Your task to perform on an android device: set an alarm Image 0: 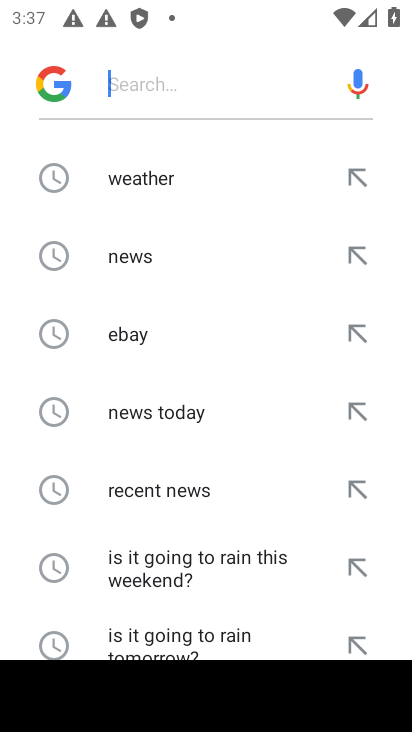
Step 0: press home button
Your task to perform on an android device: set an alarm Image 1: 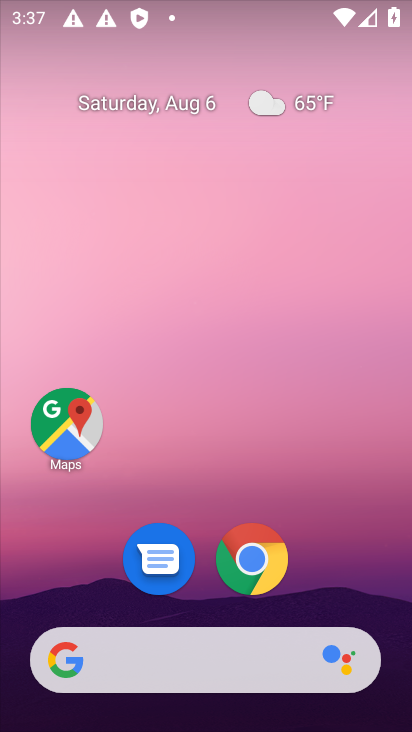
Step 1: drag from (306, 531) to (299, 99)
Your task to perform on an android device: set an alarm Image 2: 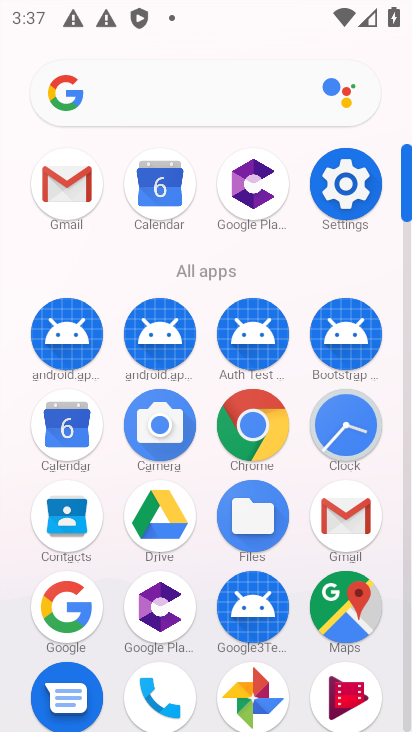
Step 2: click (330, 435)
Your task to perform on an android device: set an alarm Image 3: 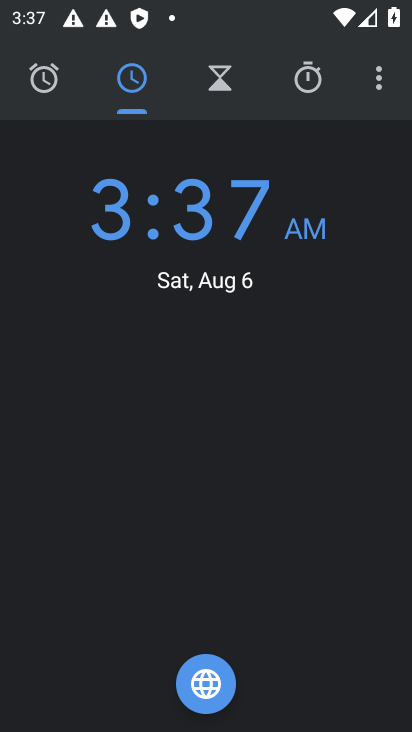
Step 3: click (50, 89)
Your task to perform on an android device: set an alarm Image 4: 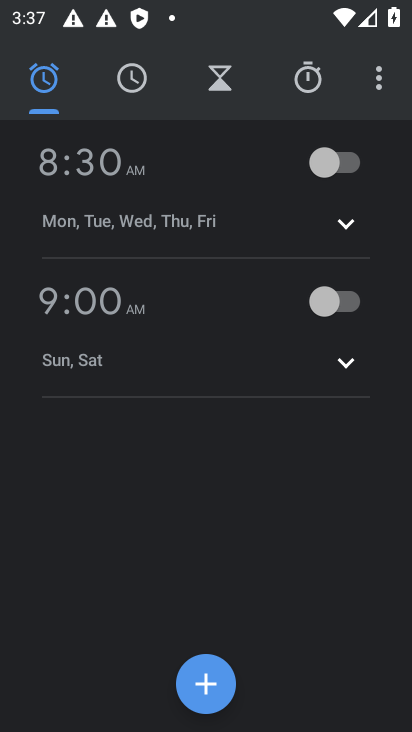
Step 4: click (214, 679)
Your task to perform on an android device: set an alarm Image 5: 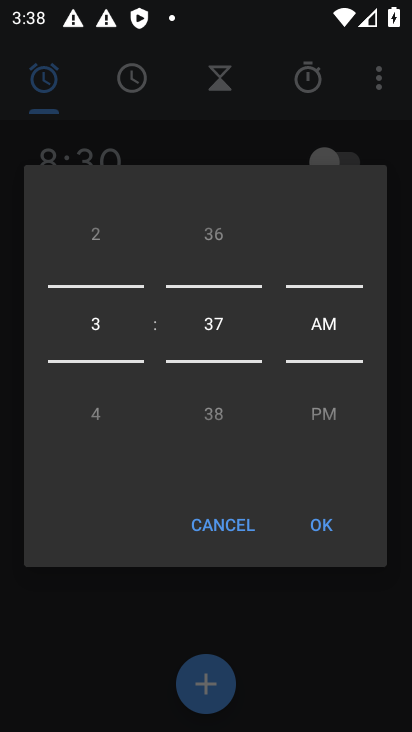
Step 5: drag from (212, 225) to (212, 434)
Your task to perform on an android device: set an alarm Image 6: 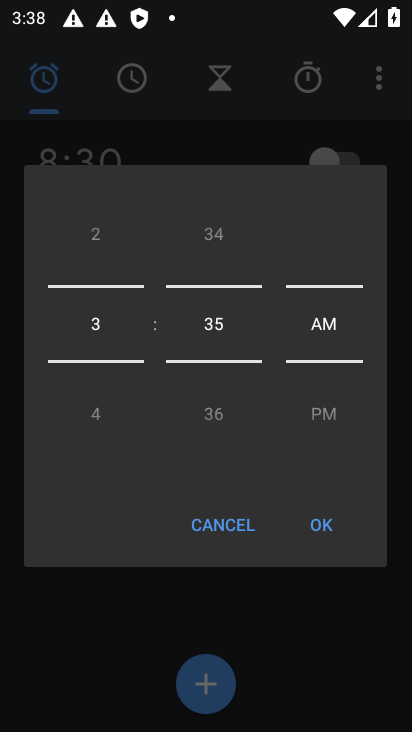
Step 6: drag from (210, 236) to (220, 430)
Your task to perform on an android device: set an alarm Image 7: 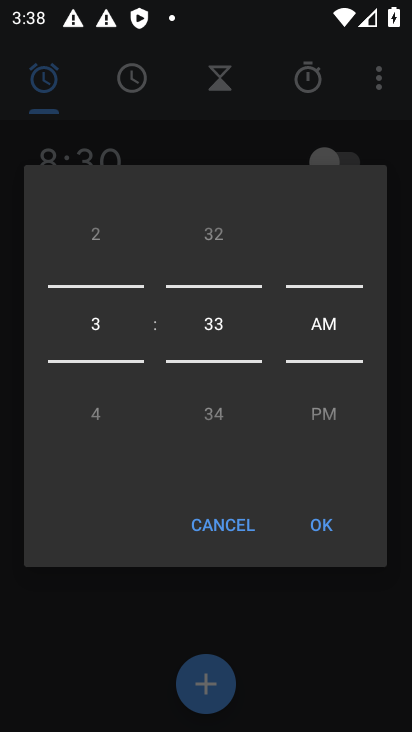
Step 7: drag from (224, 227) to (220, 435)
Your task to perform on an android device: set an alarm Image 8: 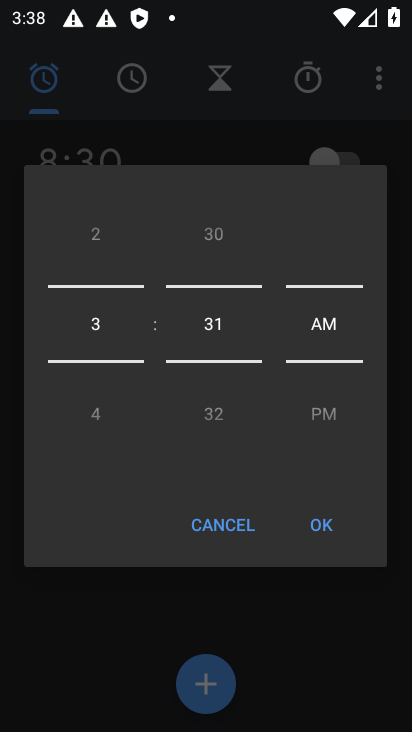
Step 8: drag from (218, 240) to (227, 345)
Your task to perform on an android device: set an alarm Image 9: 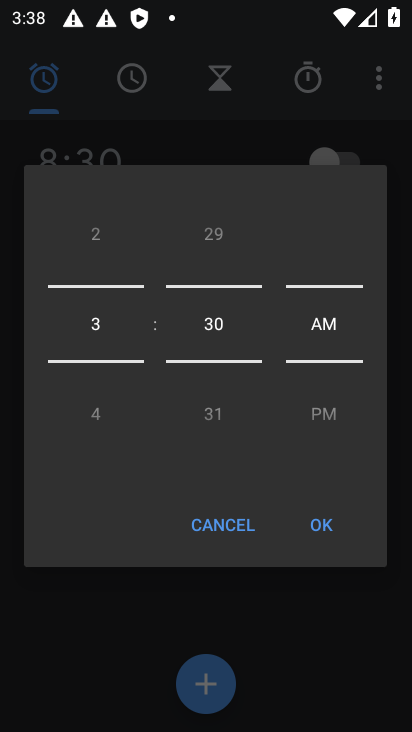
Step 9: drag from (324, 410) to (344, 297)
Your task to perform on an android device: set an alarm Image 10: 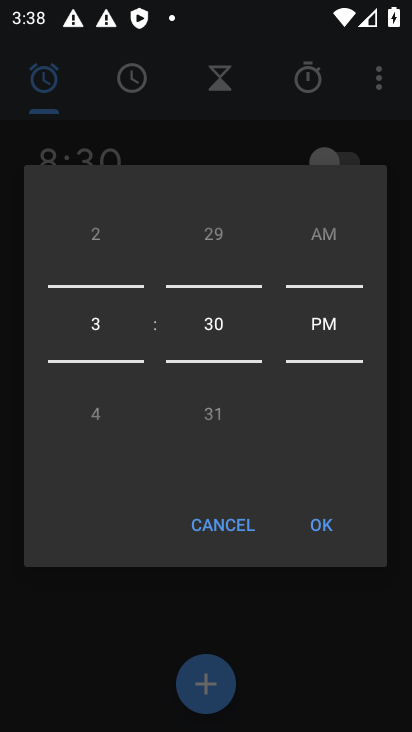
Step 10: click (313, 519)
Your task to perform on an android device: set an alarm Image 11: 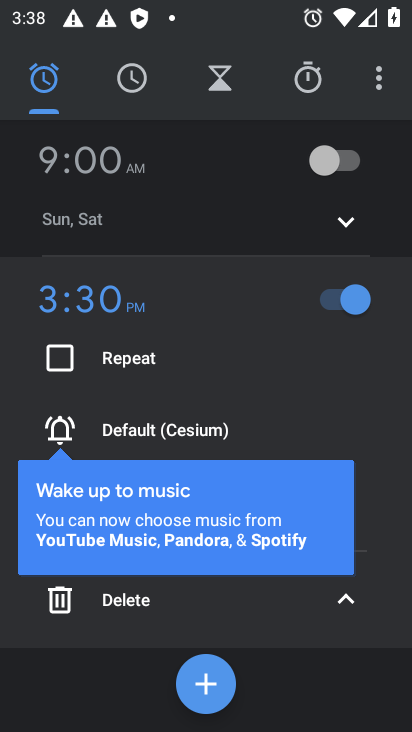
Step 11: task complete